Your task to perform on an android device: Clear the cart on bestbuy.com. Search for sony triple a on bestbuy.com, select the first entry, and add it to the cart. Image 0: 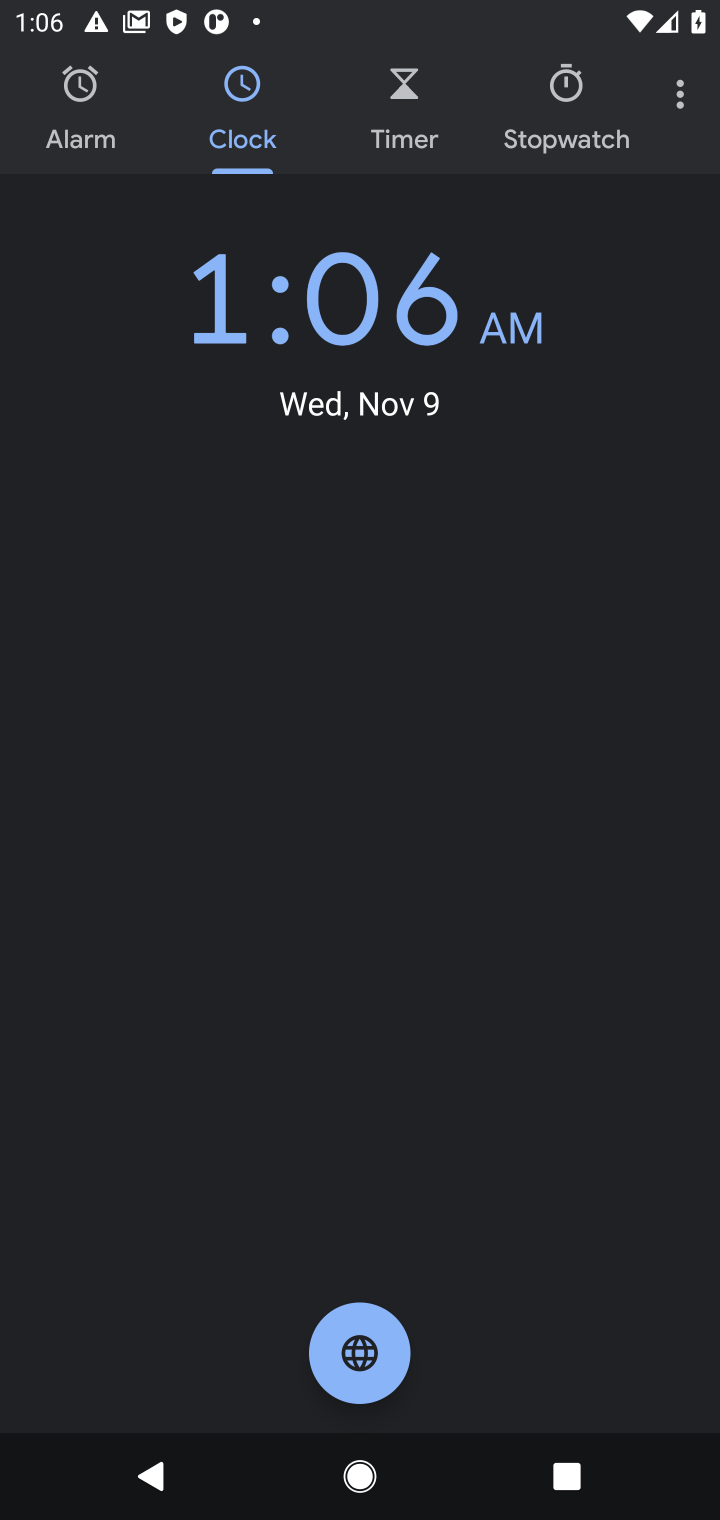
Step 0: press home button
Your task to perform on an android device: Clear the cart on bestbuy.com. Search for sony triple a on bestbuy.com, select the first entry, and add it to the cart. Image 1: 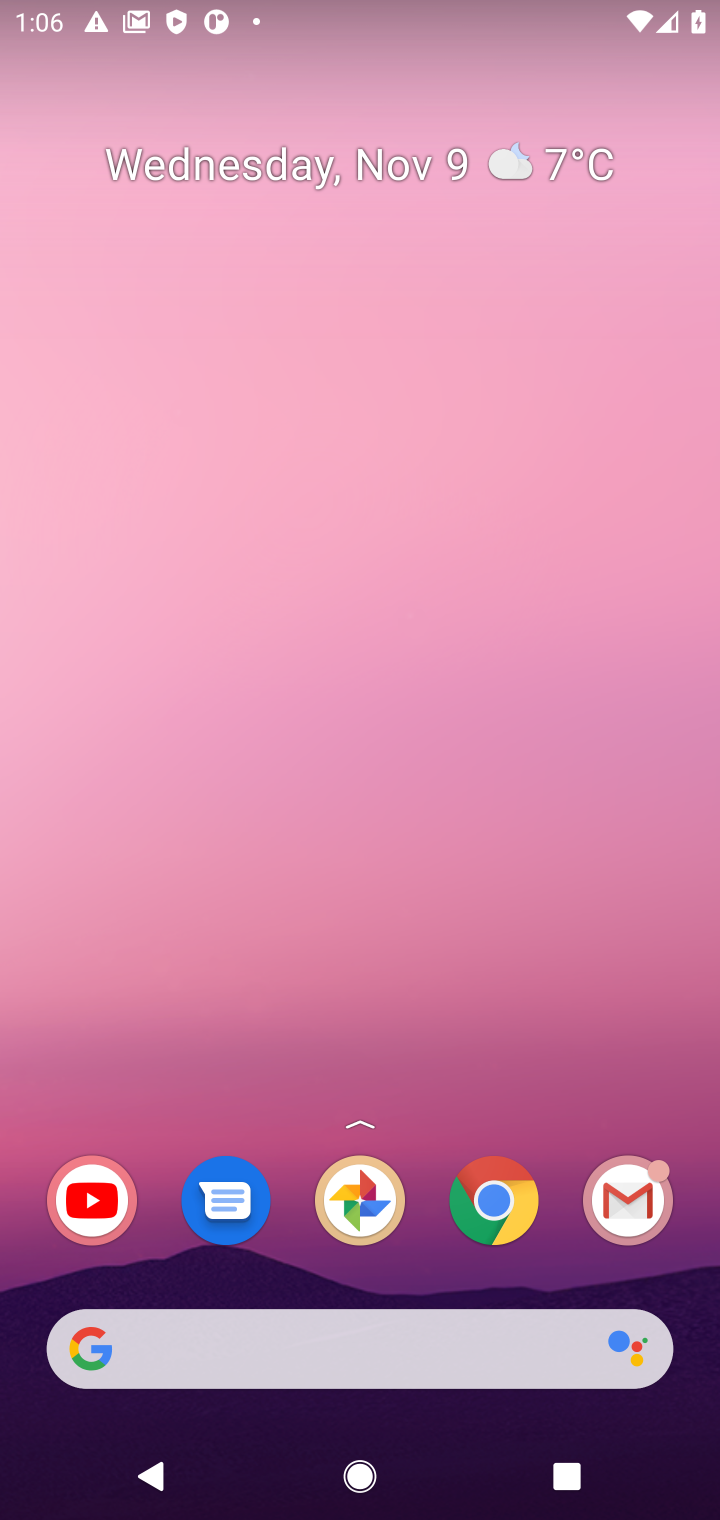
Step 1: click (410, 1344)
Your task to perform on an android device: Clear the cart on bestbuy.com. Search for sony triple a on bestbuy.com, select the first entry, and add it to the cart. Image 2: 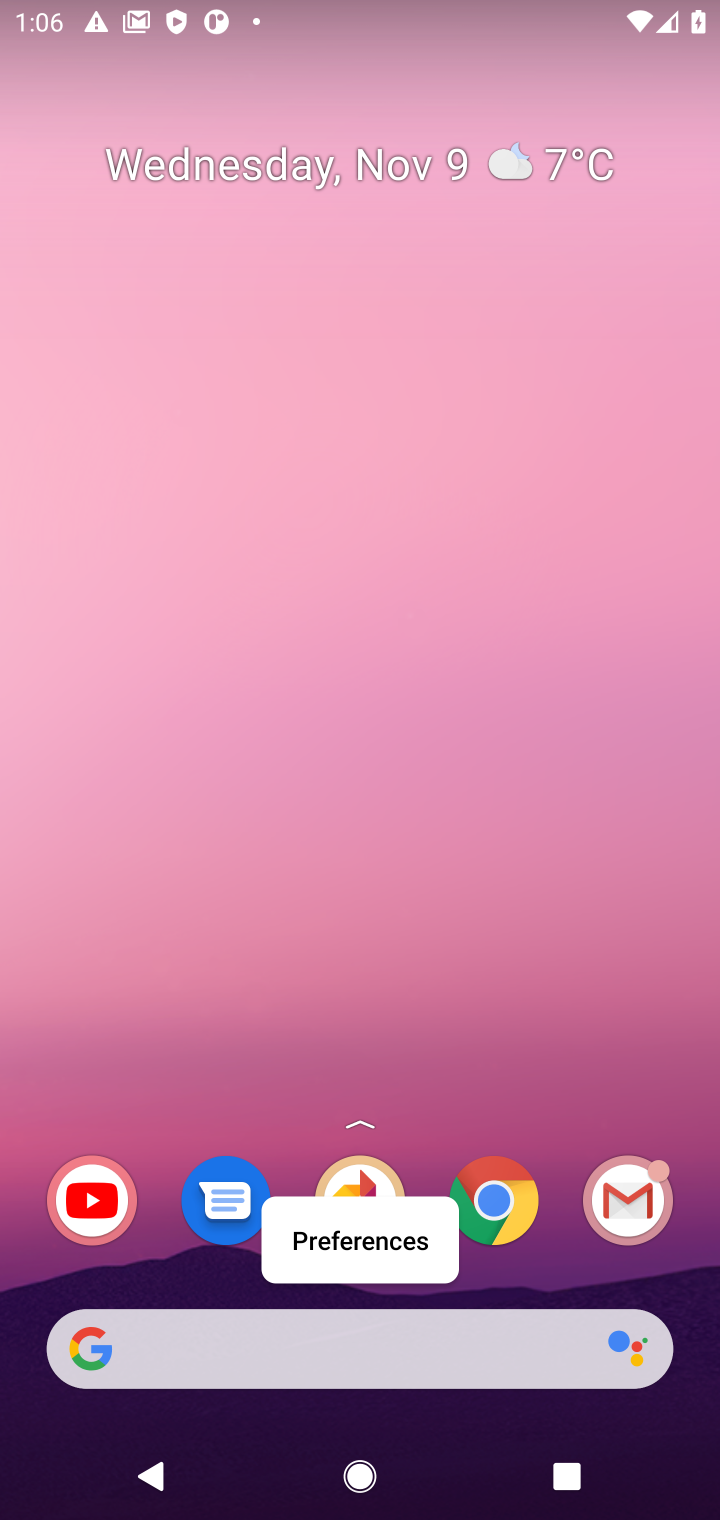
Step 2: click (324, 1367)
Your task to perform on an android device: Clear the cart on bestbuy.com. Search for sony triple a on bestbuy.com, select the first entry, and add it to the cart. Image 3: 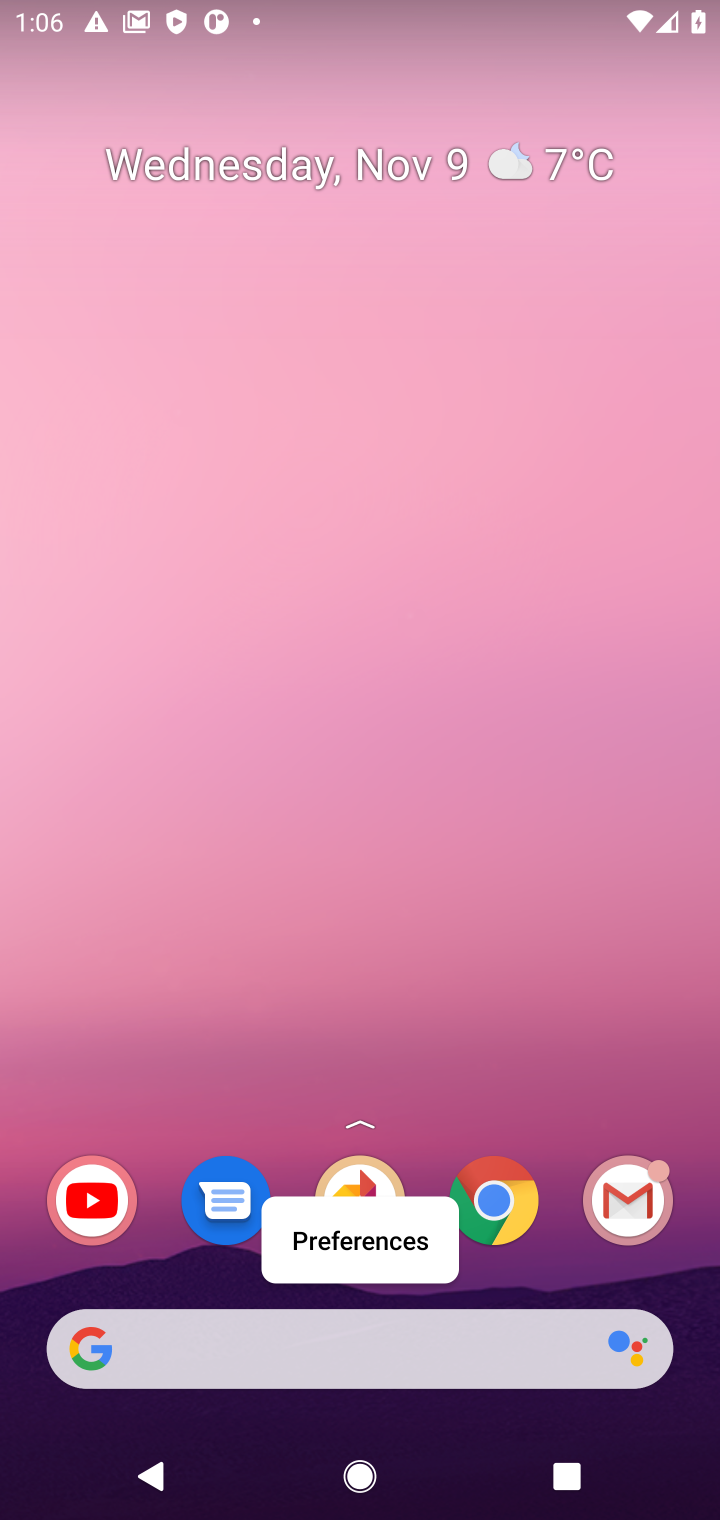
Step 3: click (200, 1367)
Your task to perform on an android device: Clear the cart on bestbuy.com. Search for sony triple a on bestbuy.com, select the first entry, and add it to the cart. Image 4: 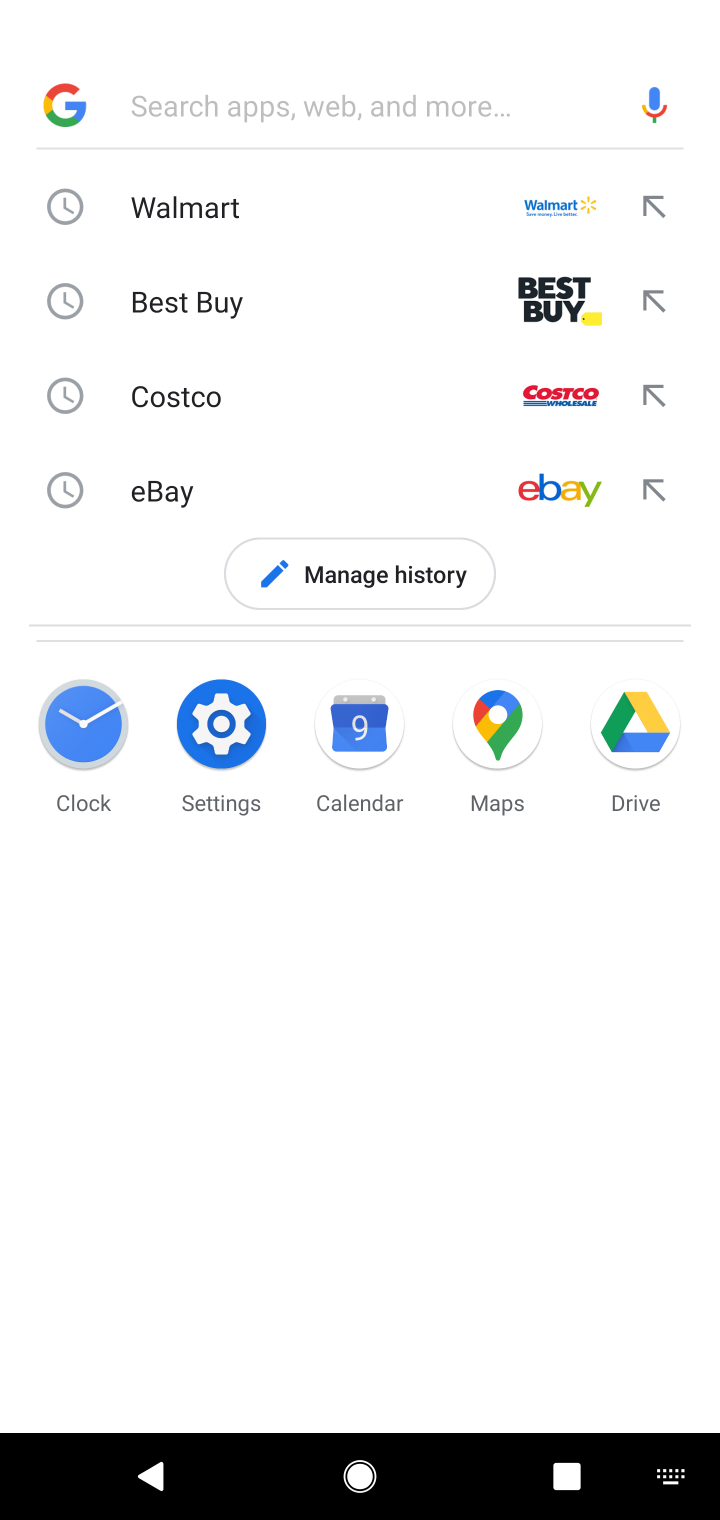
Step 4: type "bestbuy"
Your task to perform on an android device: Clear the cart on bestbuy.com. Search for sony triple a on bestbuy.com, select the first entry, and add it to the cart. Image 5: 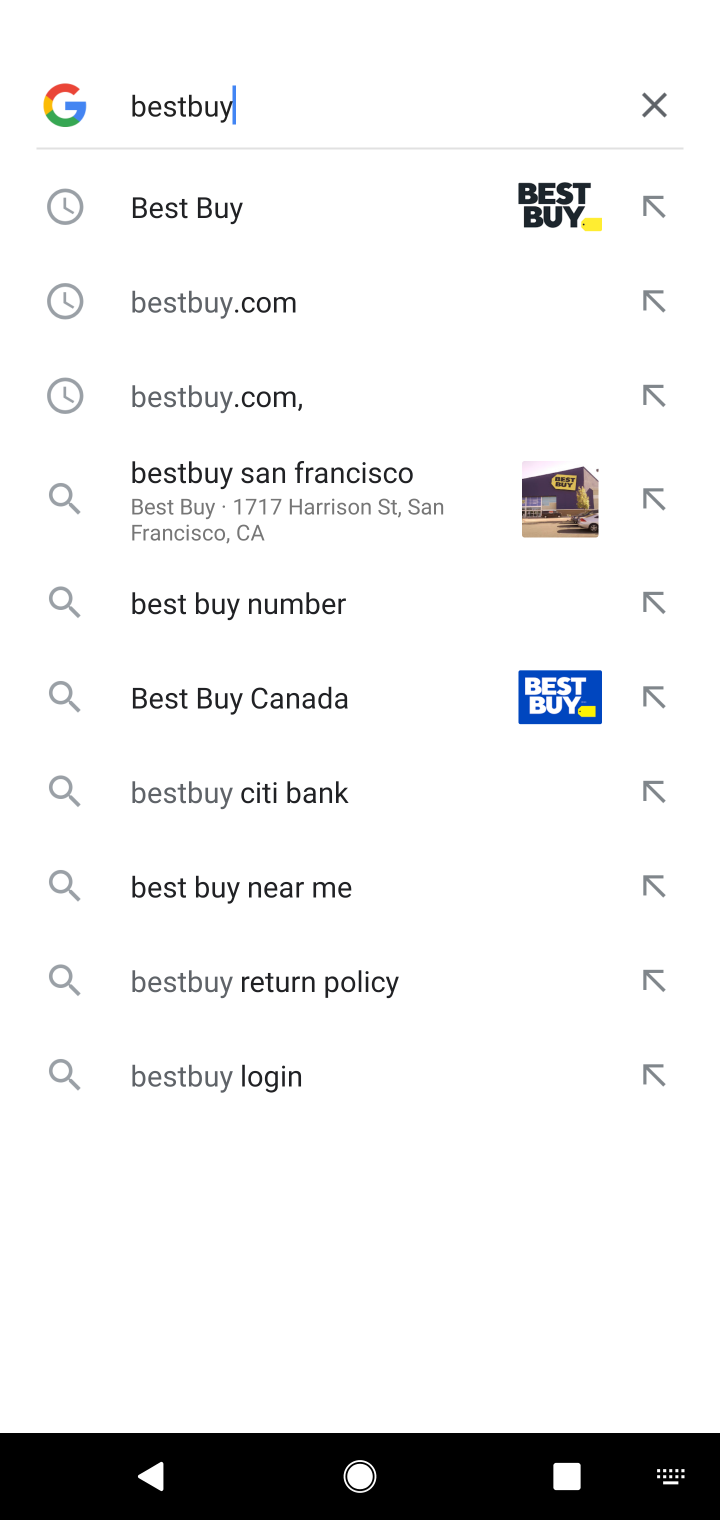
Step 5: click (242, 219)
Your task to perform on an android device: Clear the cart on bestbuy.com. Search for sony triple a on bestbuy.com, select the first entry, and add it to the cart. Image 6: 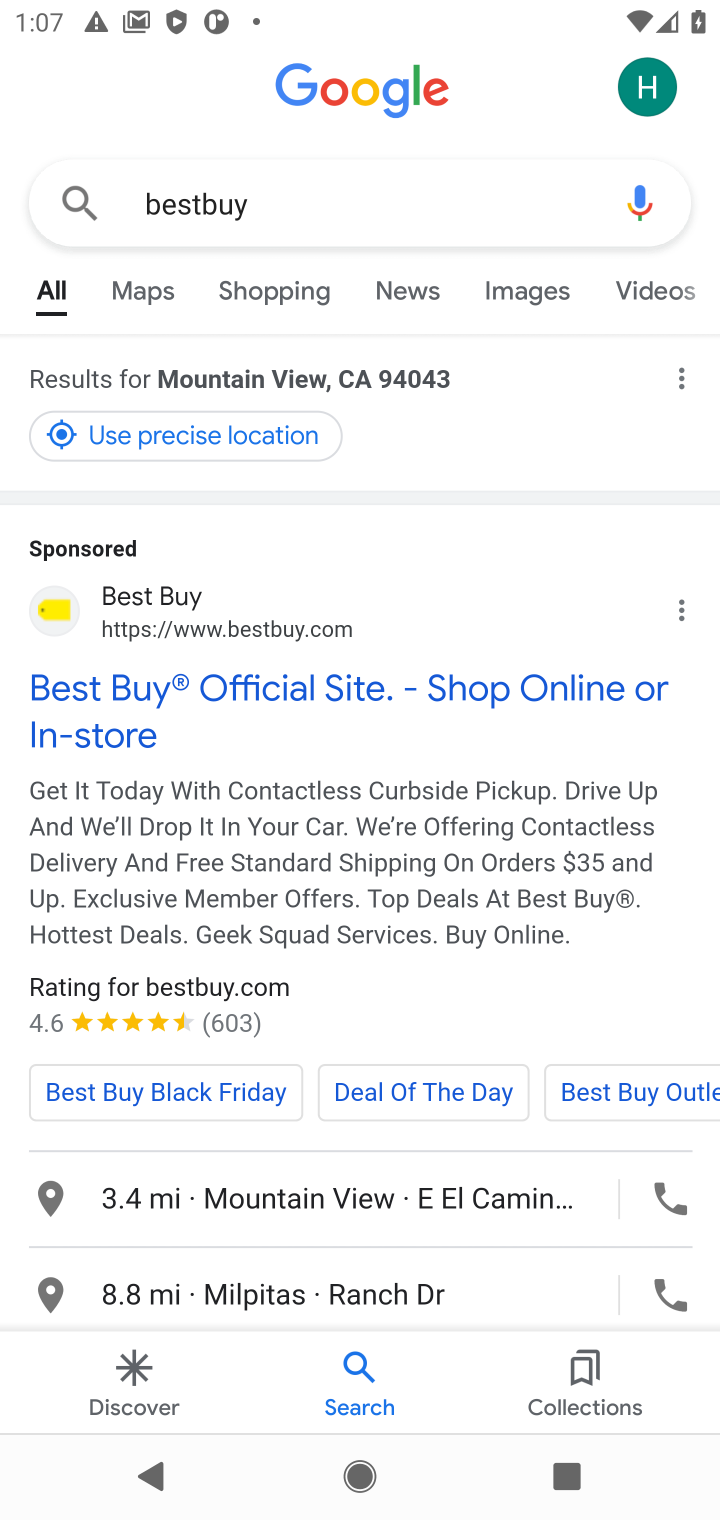
Step 6: click (358, 711)
Your task to perform on an android device: Clear the cart on bestbuy.com. Search for sony triple a on bestbuy.com, select the first entry, and add it to the cart. Image 7: 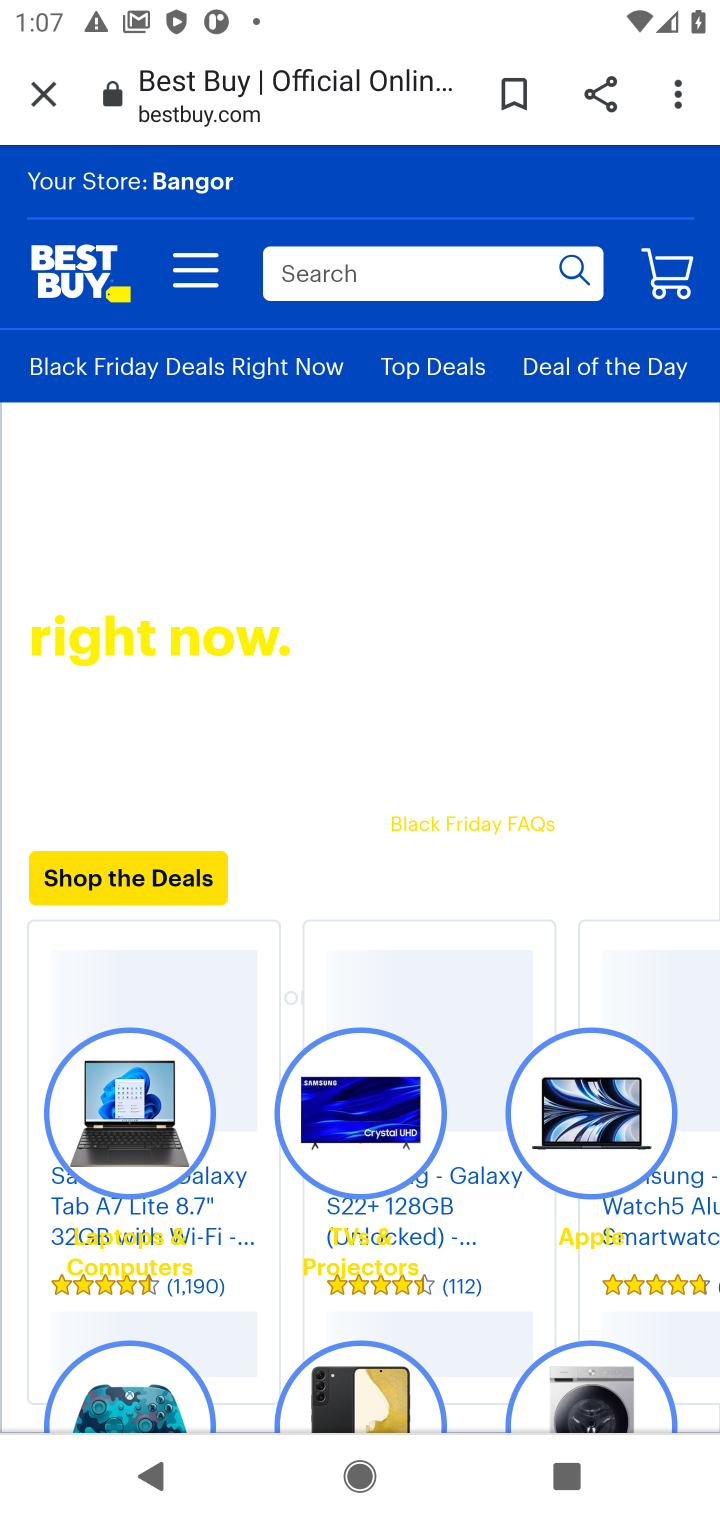
Step 7: task complete